Your task to perform on an android device: see tabs open on other devices in the chrome app Image 0: 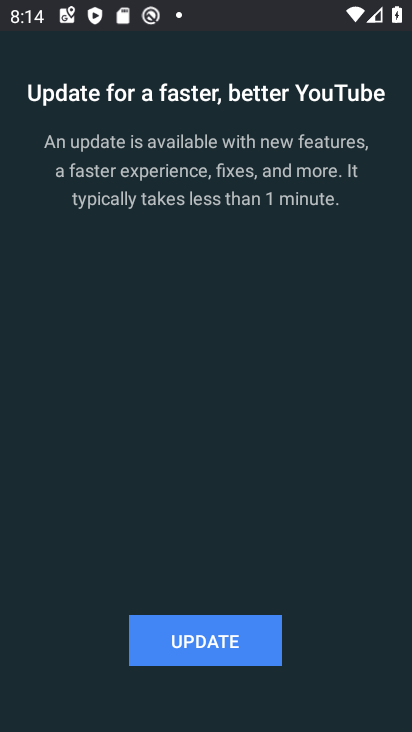
Step 0: press home button
Your task to perform on an android device: see tabs open on other devices in the chrome app Image 1: 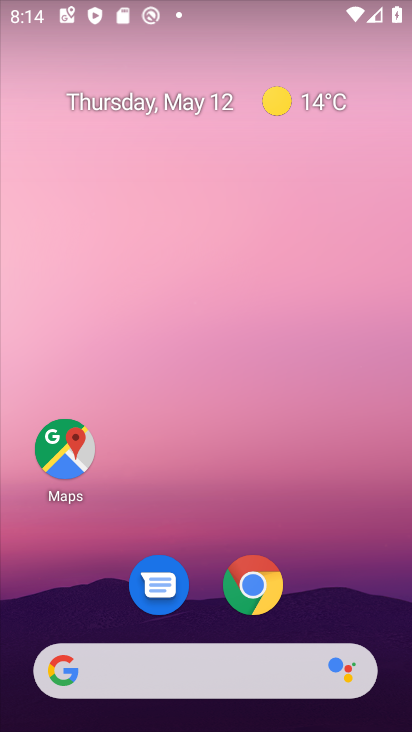
Step 1: click (261, 578)
Your task to perform on an android device: see tabs open on other devices in the chrome app Image 2: 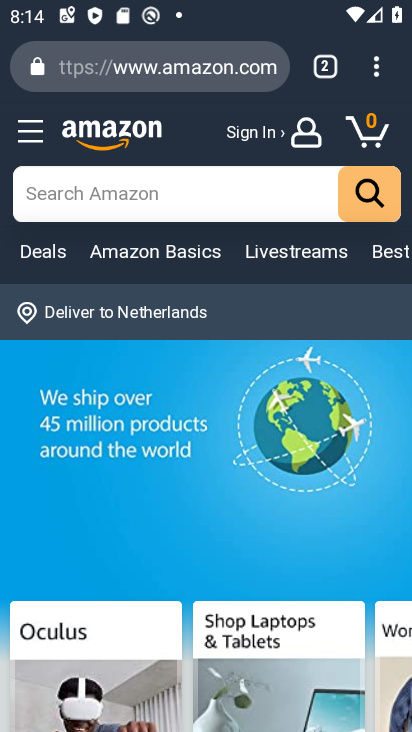
Step 2: click (372, 70)
Your task to perform on an android device: see tabs open on other devices in the chrome app Image 3: 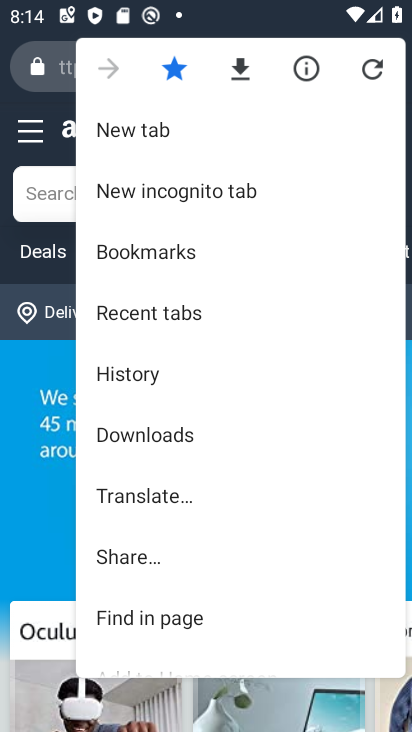
Step 3: click (181, 314)
Your task to perform on an android device: see tabs open on other devices in the chrome app Image 4: 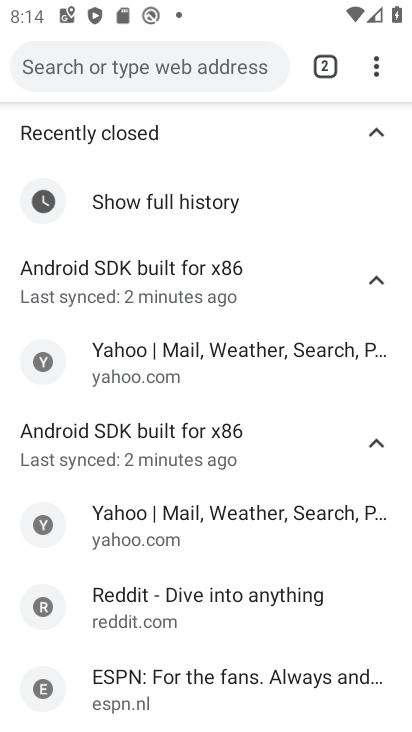
Step 4: task complete